Your task to perform on an android device: Go to sound settings Image 0: 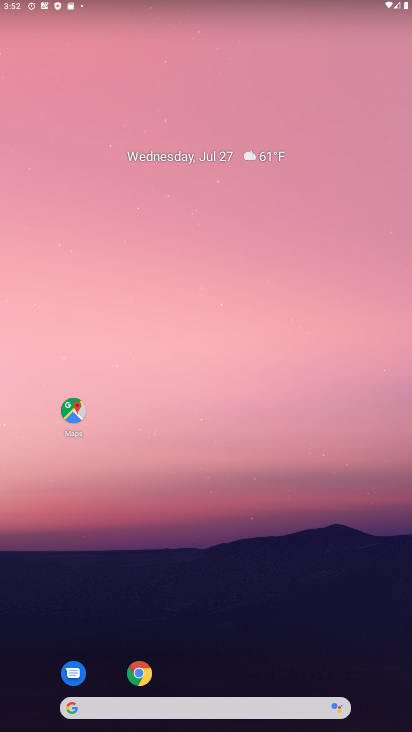
Step 0: drag from (78, 600) to (255, 77)
Your task to perform on an android device: Go to sound settings Image 1: 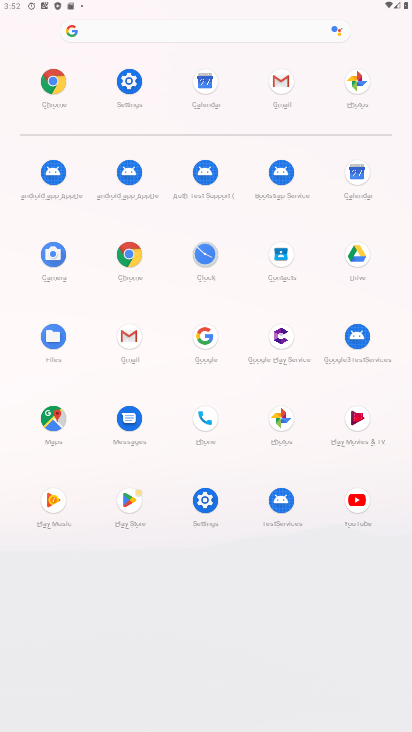
Step 1: click (200, 502)
Your task to perform on an android device: Go to sound settings Image 2: 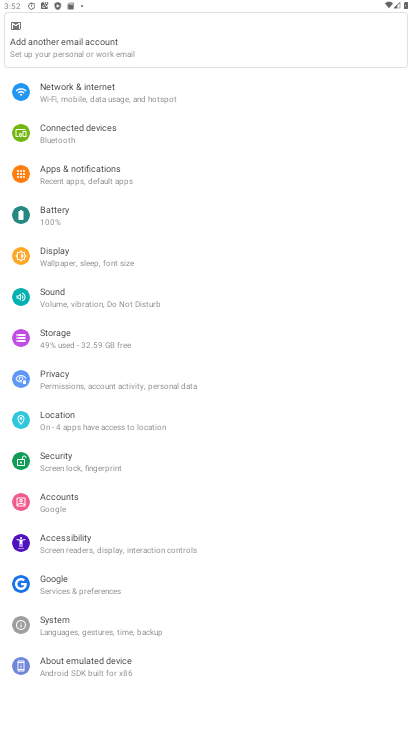
Step 2: click (69, 298)
Your task to perform on an android device: Go to sound settings Image 3: 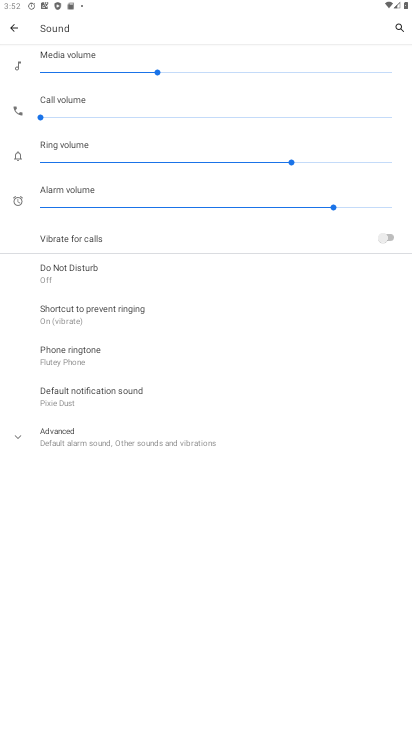
Step 3: task complete